Your task to perform on an android device: delete the emails in spam in the gmail app Image 0: 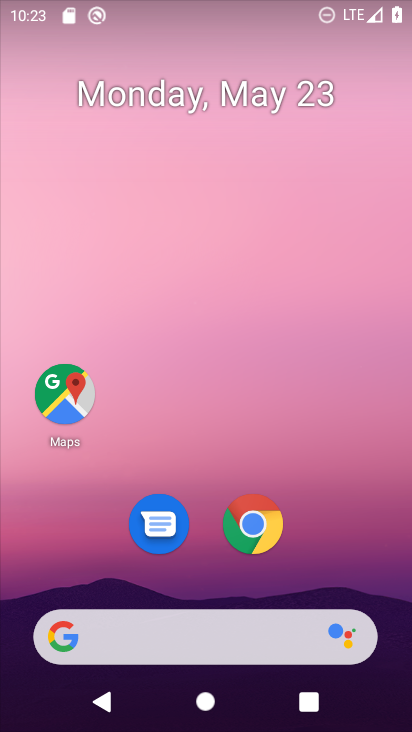
Step 0: drag from (233, 447) to (272, 47)
Your task to perform on an android device: delete the emails in spam in the gmail app Image 1: 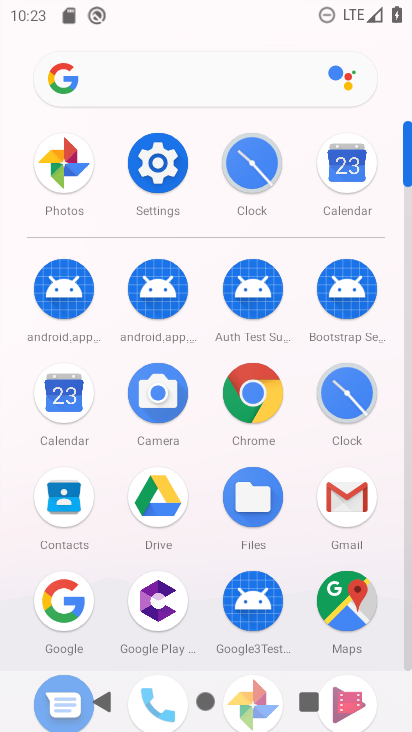
Step 1: click (339, 490)
Your task to perform on an android device: delete the emails in spam in the gmail app Image 2: 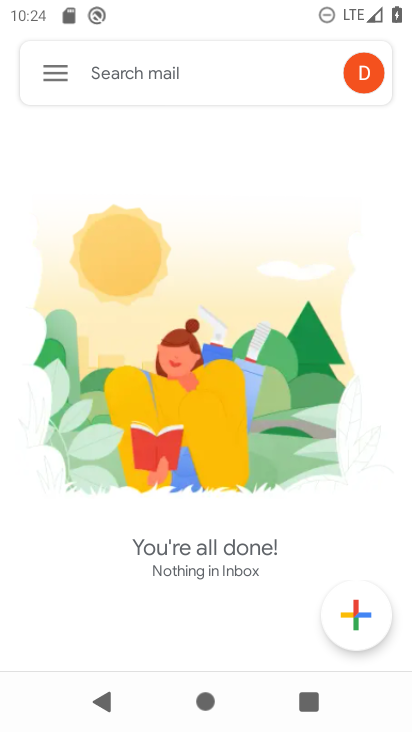
Step 2: click (54, 77)
Your task to perform on an android device: delete the emails in spam in the gmail app Image 3: 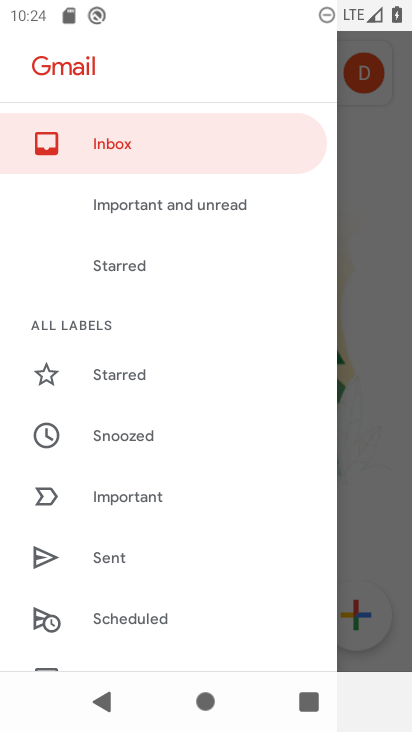
Step 3: drag from (149, 526) to (191, 73)
Your task to perform on an android device: delete the emails in spam in the gmail app Image 4: 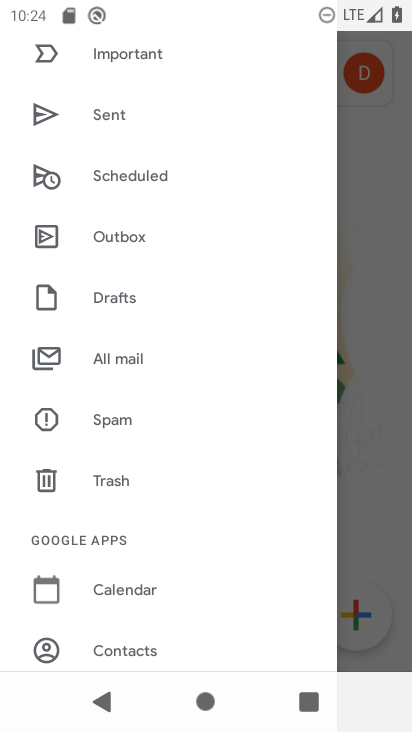
Step 4: click (146, 420)
Your task to perform on an android device: delete the emails in spam in the gmail app Image 5: 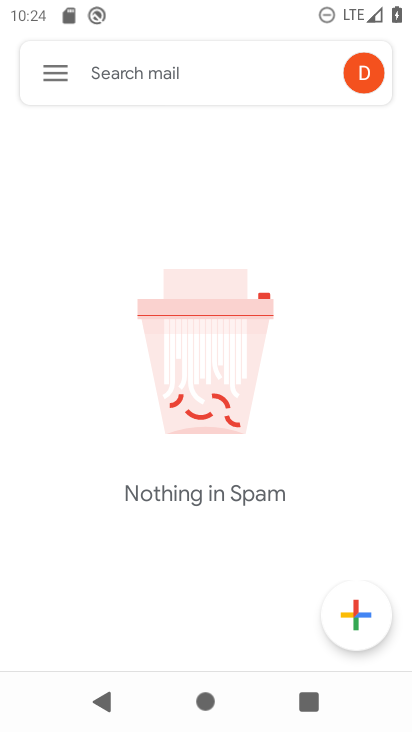
Step 5: task complete